Your task to perform on an android device: turn on notifications settings in the gmail app Image 0: 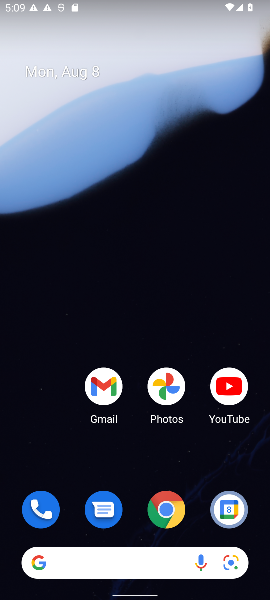
Step 0: click (100, 384)
Your task to perform on an android device: turn on notifications settings in the gmail app Image 1: 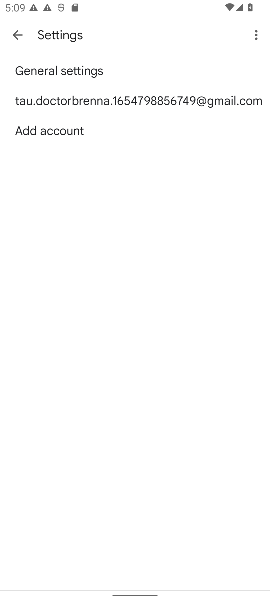
Step 1: click (19, 32)
Your task to perform on an android device: turn on notifications settings in the gmail app Image 2: 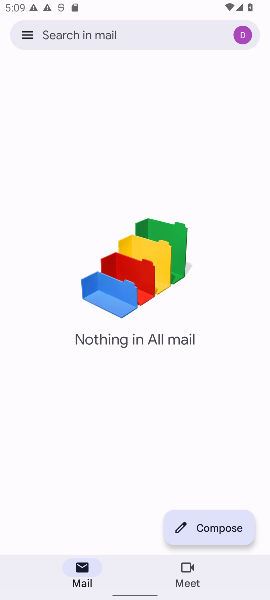
Step 2: click (29, 35)
Your task to perform on an android device: turn on notifications settings in the gmail app Image 3: 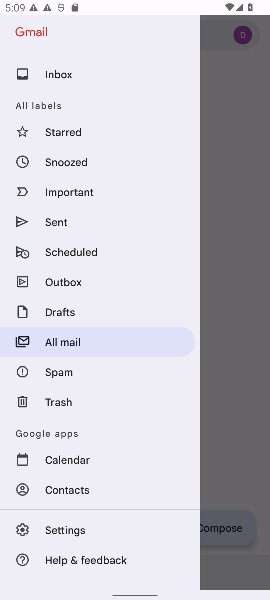
Step 3: click (71, 529)
Your task to perform on an android device: turn on notifications settings in the gmail app Image 4: 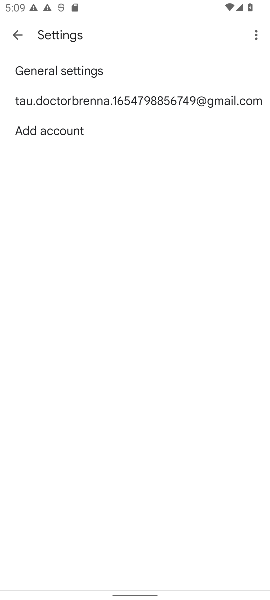
Step 4: click (61, 70)
Your task to perform on an android device: turn on notifications settings in the gmail app Image 5: 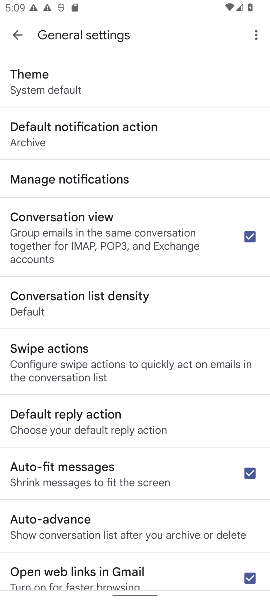
Step 5: click (73, 181)
Your task to perform on an android device: turn on notifications settings in the gmail app Image 6: 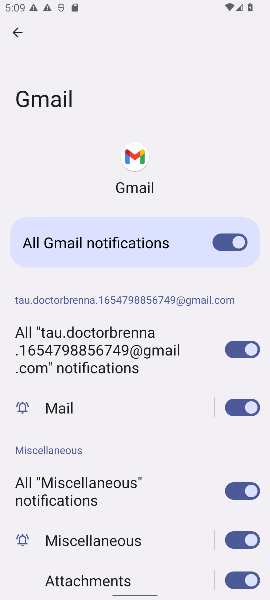
Step 6: task complete